Your task to perform on an android device: What is the news today? Image 0: 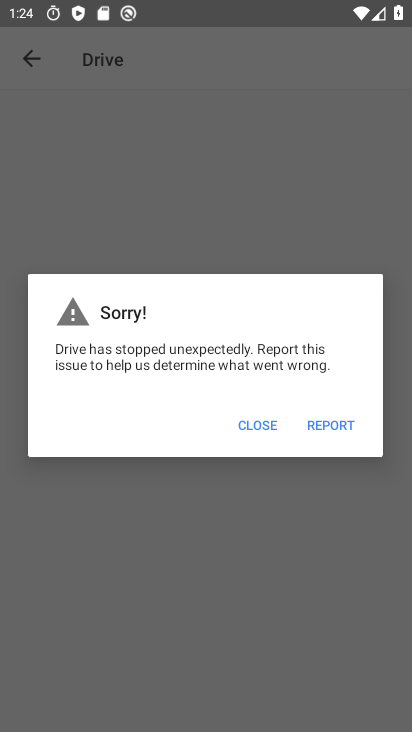
Step 0: press home button
Your task to perform on an android device: What is the news today? Image 1: 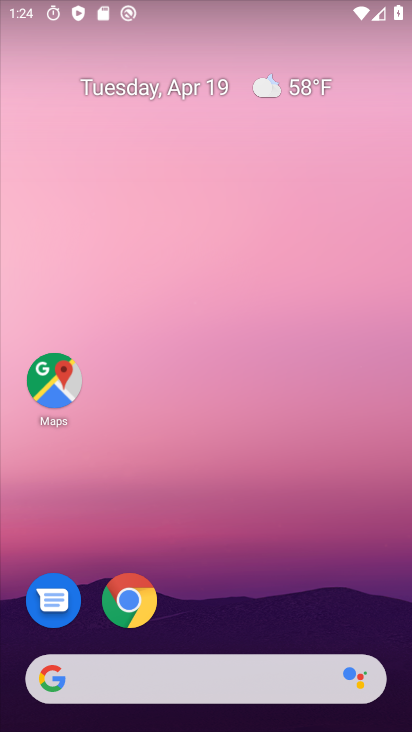
Step 1: drag from (265, 703) to (197, 283)
Your task to perform on an android device: What is the news today? Image 2: 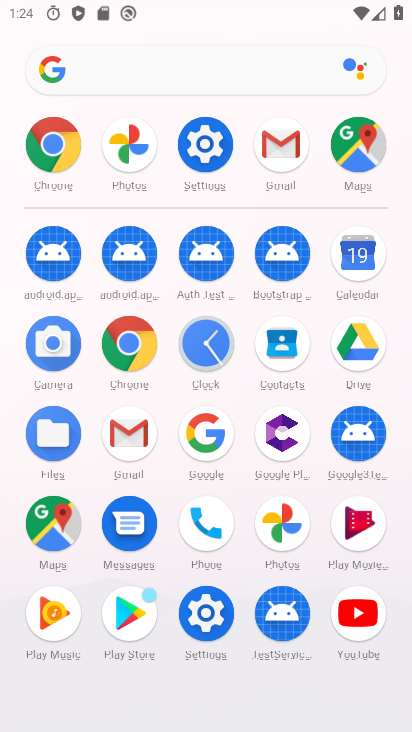
Step 2: click (78, 81)
Your task to perform on an android device: What is the news today? Image 3: 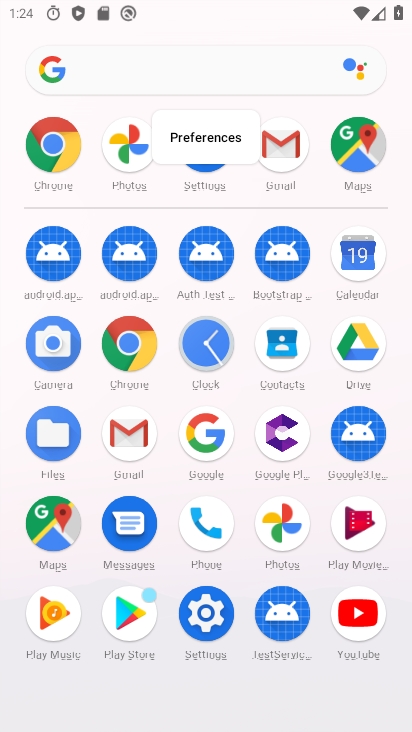
Step 3: click (54, 66)
Your task to perform on an android device: What is the news today? Image 4: 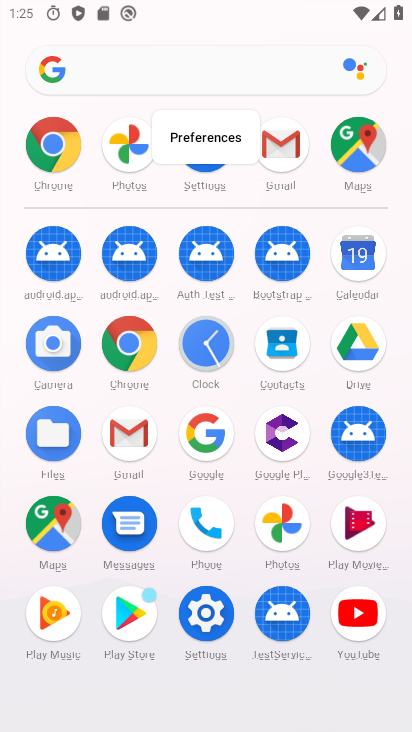
Step 4: click (61, 65)
Your task to perform on an android device: What is the news today? Image 5: 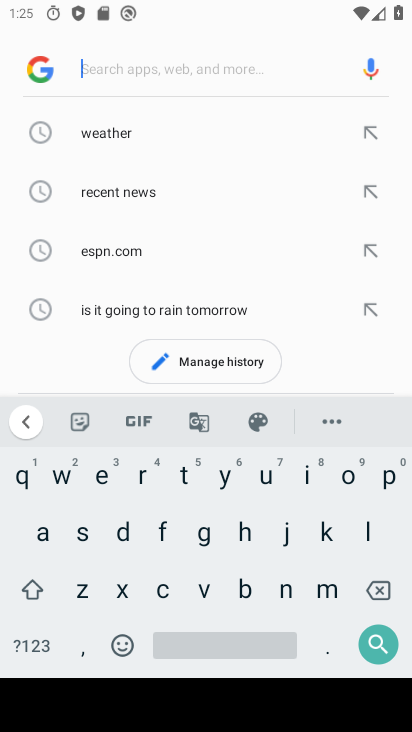
Step 5: click (128, 196)
Your task to perform on an android device: What is the news today? Image 6: 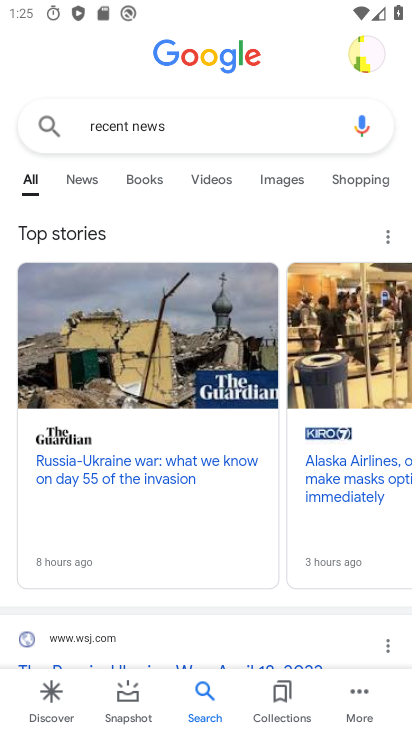
Step 6: task complete